Your task to perform on an android device: uninstall "McDonald's" Image 0: 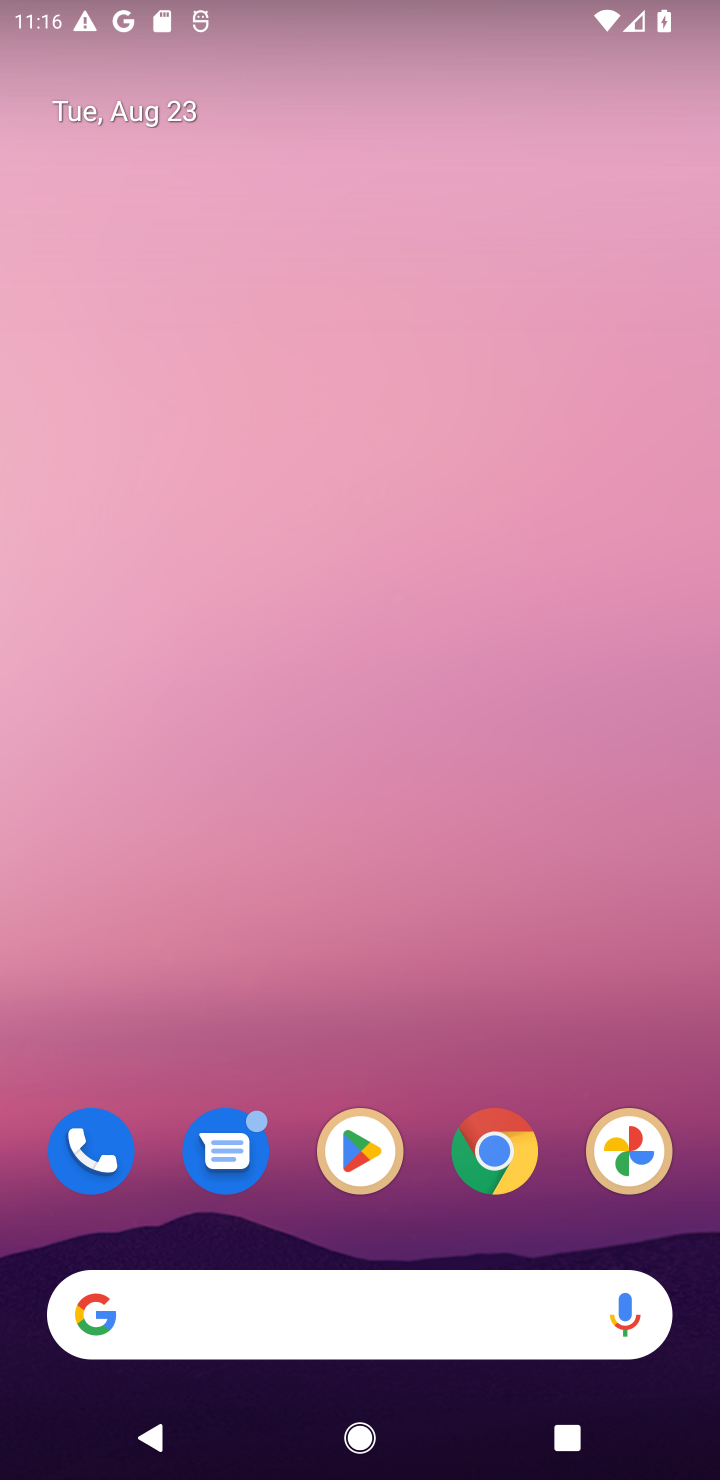
Step 0: click (363, 1136)
Your task to perform on an android device: uninstall "McDonald's" Image 1: 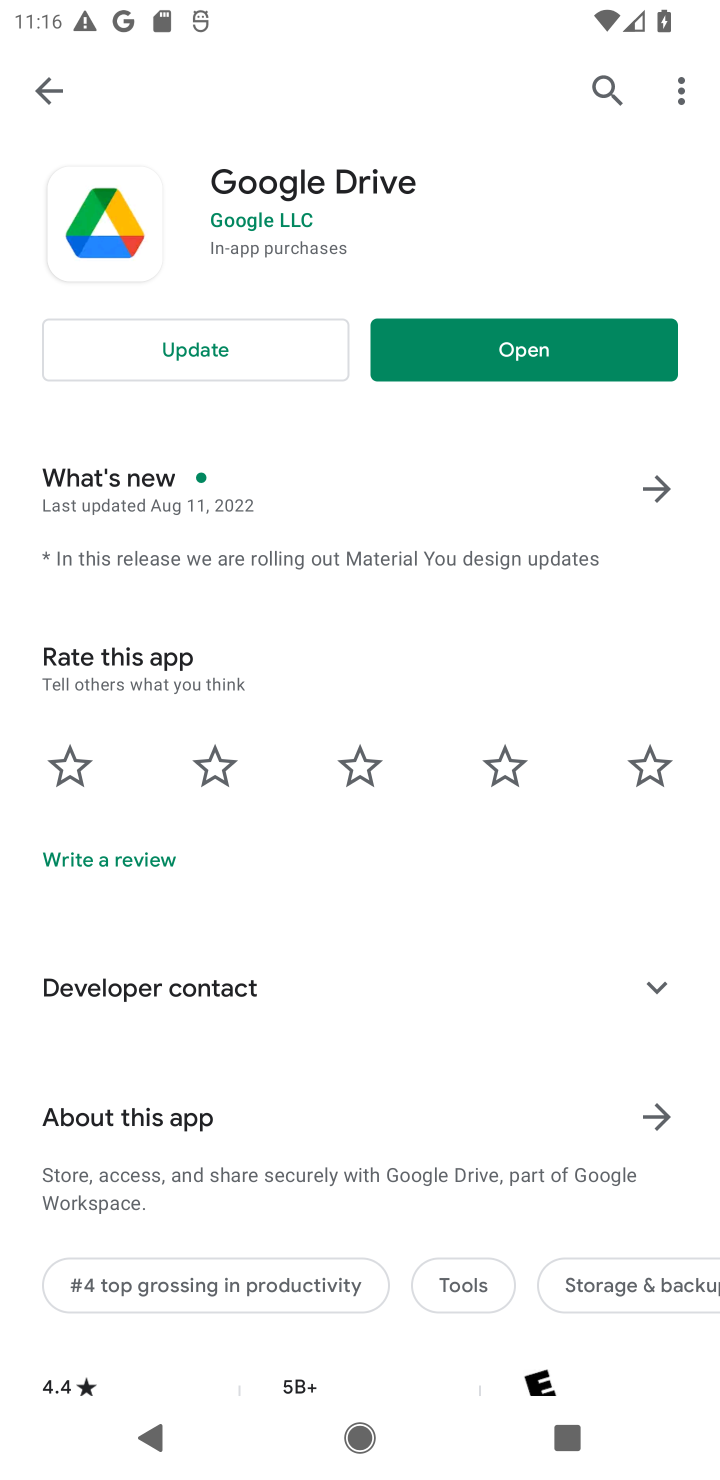
Step 1: click (597, 84)
Your task to perform on an android device: uninstall "McDonald's" Image 2: 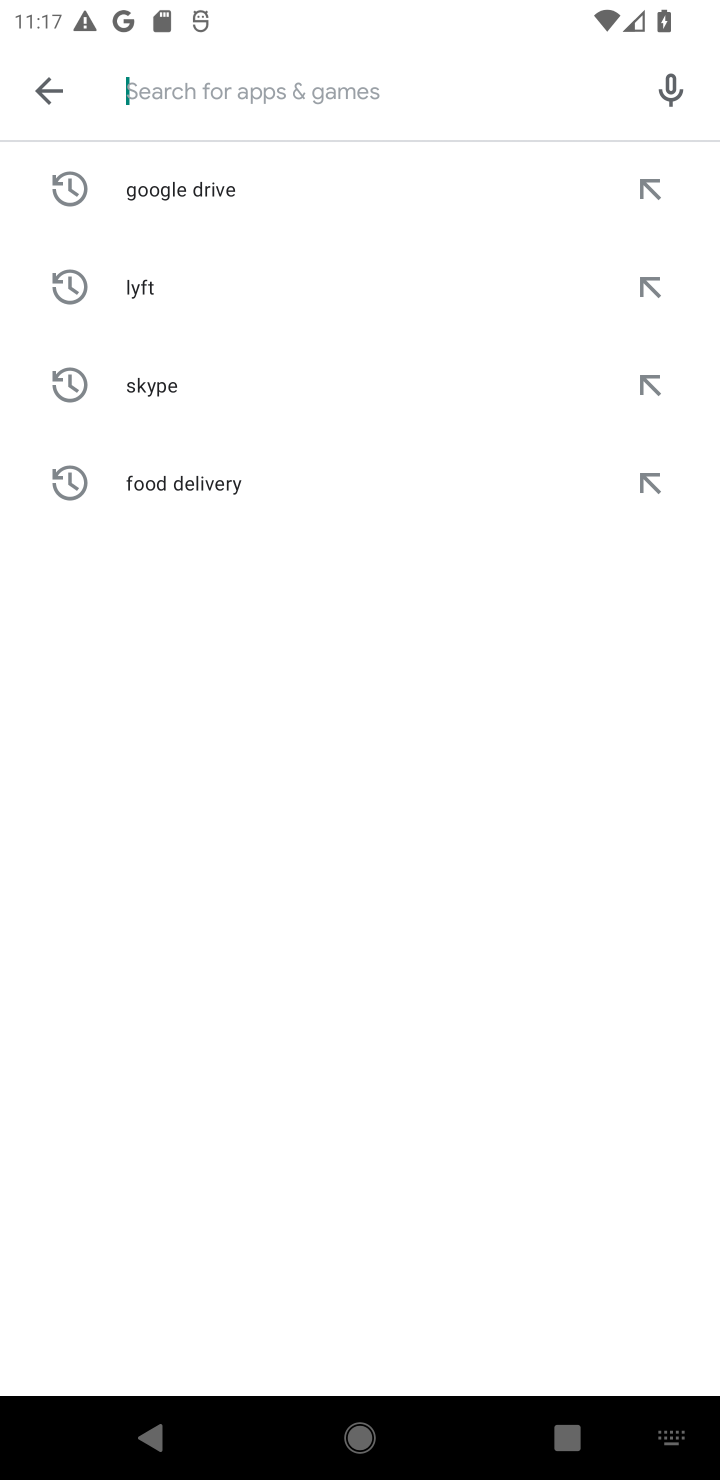
Step 2: type "McDonald's"
Your task to perform on an android device: uninstall "McDonald's" Image 3: 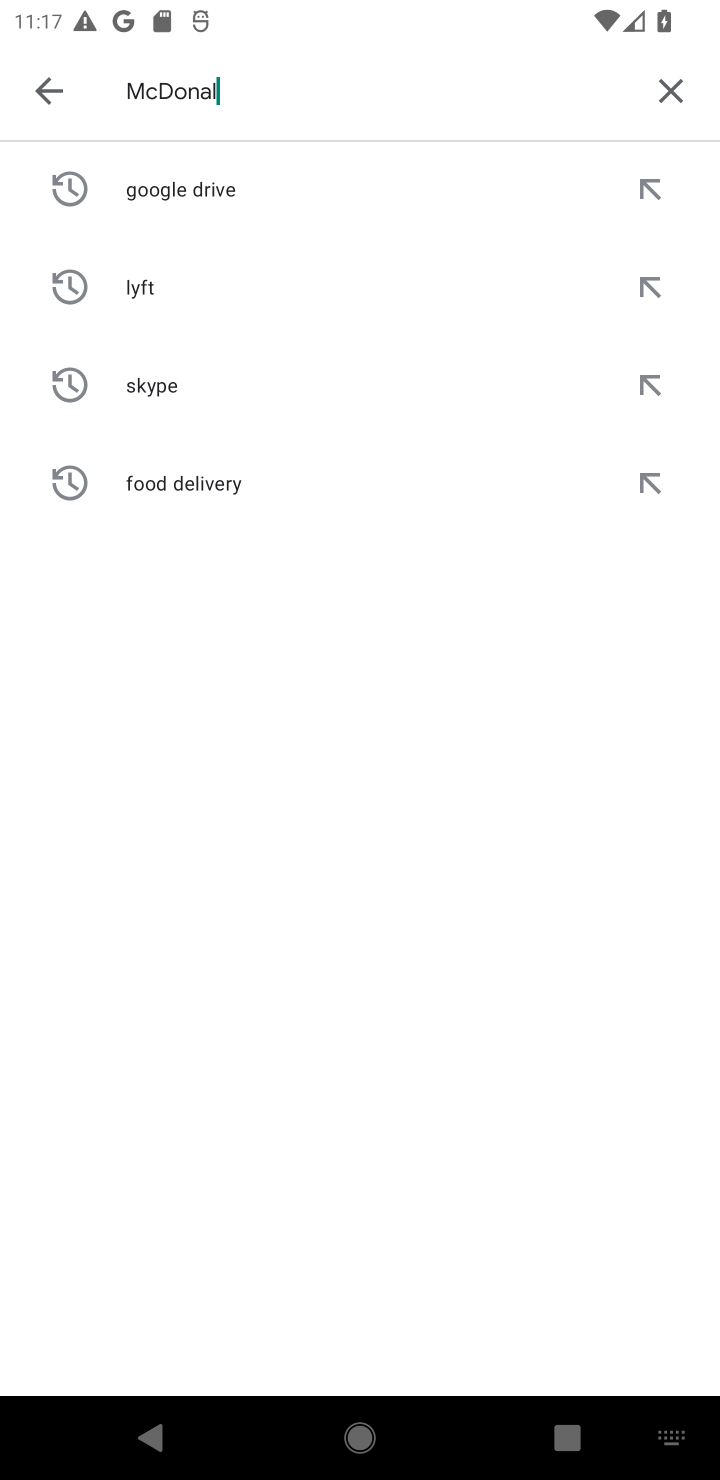
Step 3: type ""
Your task to perform on an android device: uninstall "McDonald's" Image 4: 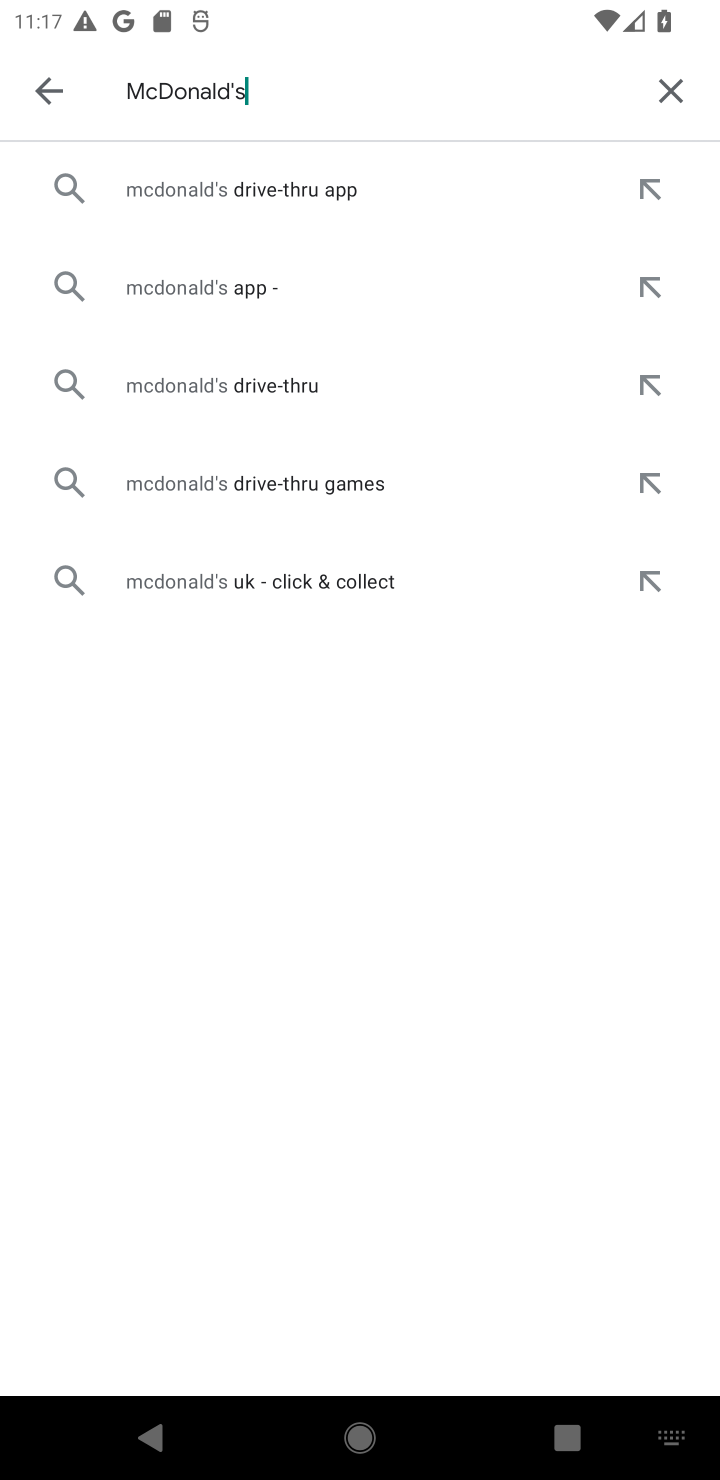
Step 4: click (228, 185)
Your task to perform on an android device: uninstall "McDonald's" Image 5: 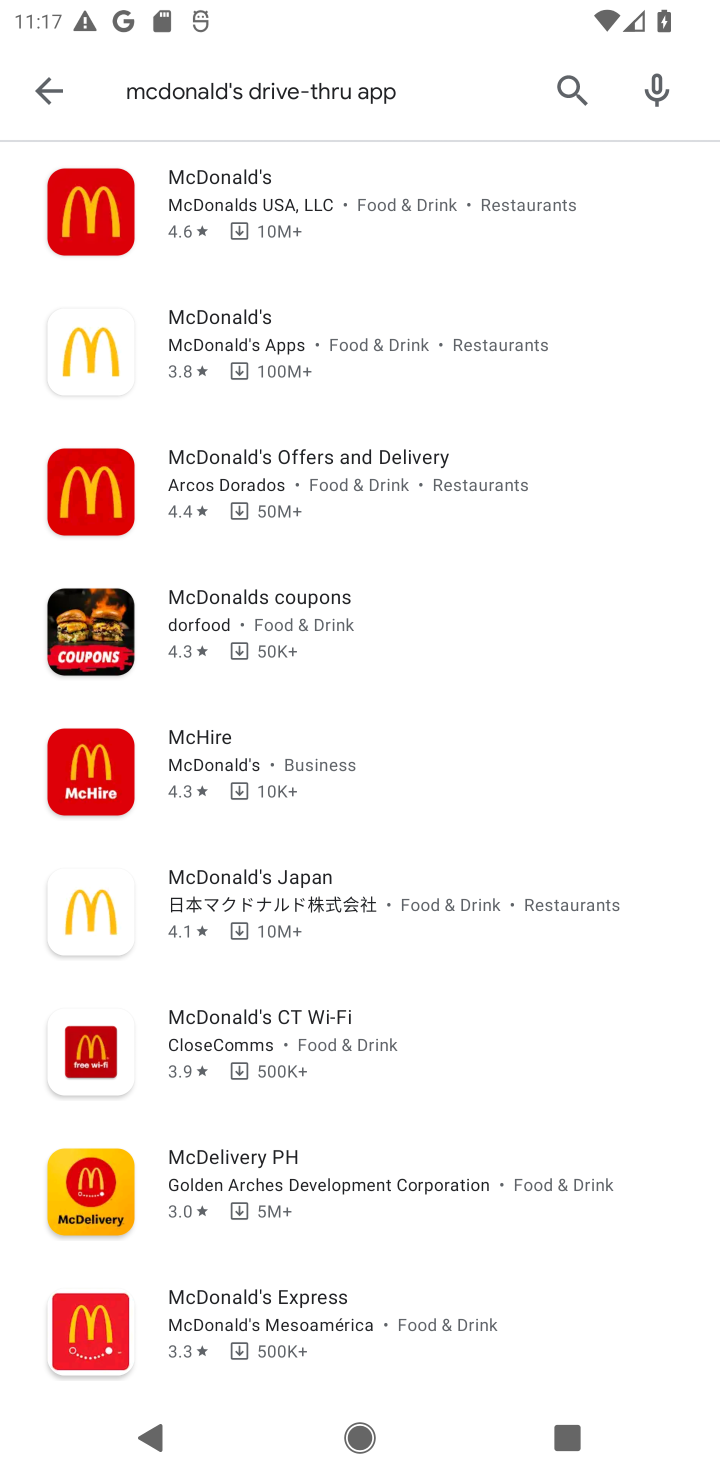
Step 5: click (384, 232)
Your task to perform on an android device: uninstall "McDonald's" Image 6: 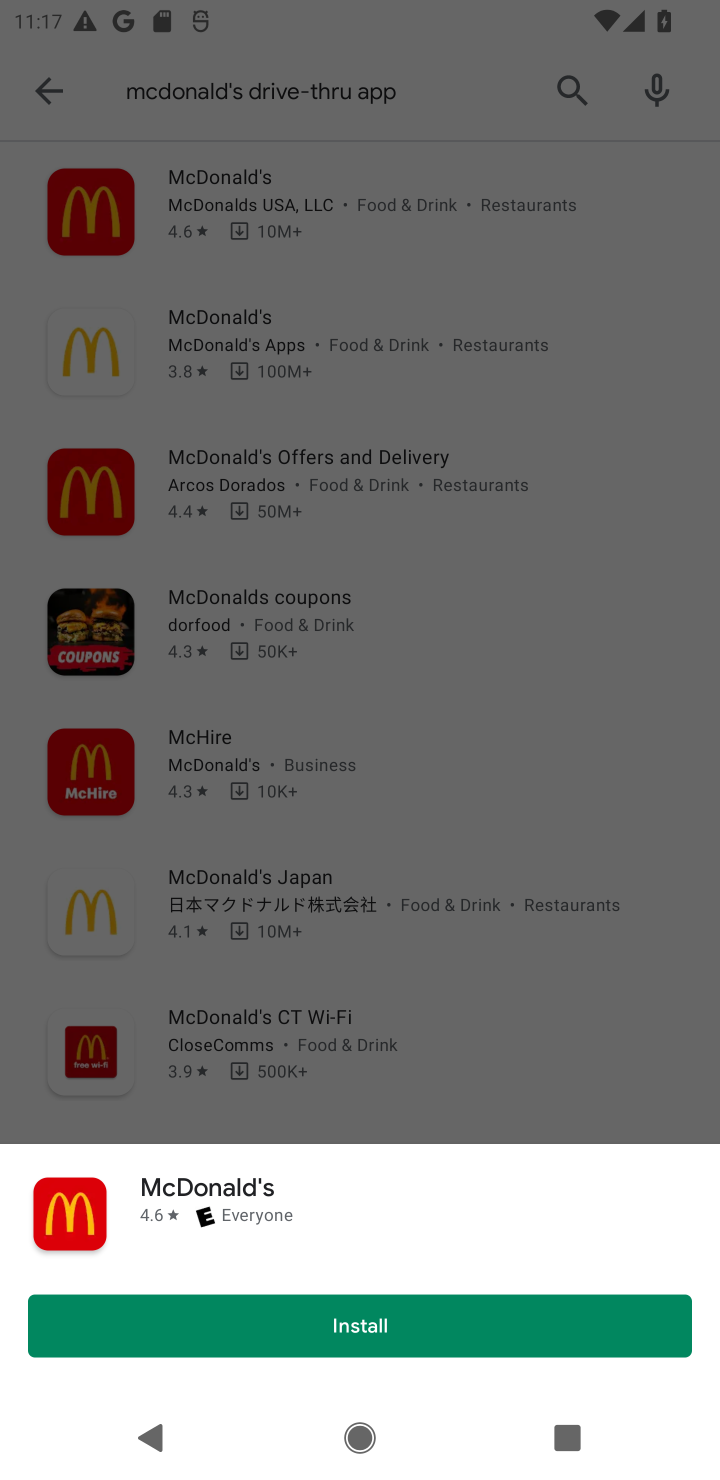
Step 6: click (284, 1211)
Your task to perform on an android device: uninstall "McDonald's" Image 7: 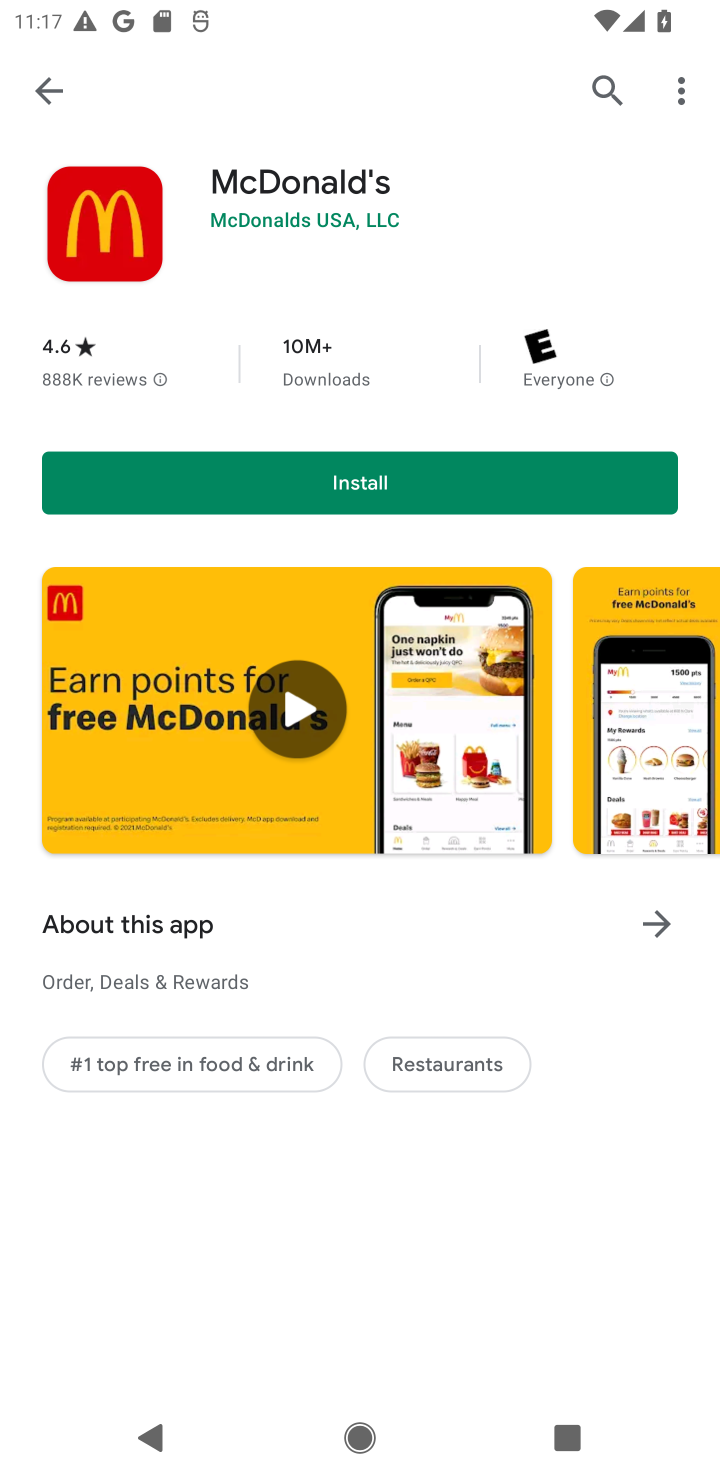
Step 7: task complete